Your task to perform on an android device: clear all cookies in the chrome app Image 0: 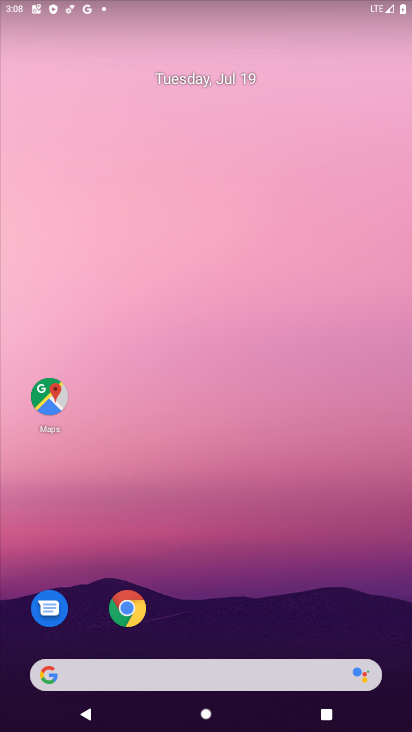
Step 0: drag from (310, 548) to (285, 48)
Your task to perform on an android device: clear all cookies in the chrome app Image 1: 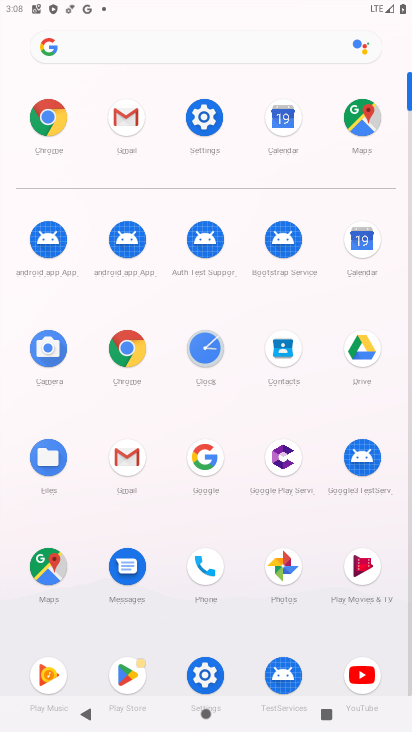
Step 1: click (45, 113)
Your task to perform on an android device: clear all cookies in the chrome app Image 2: 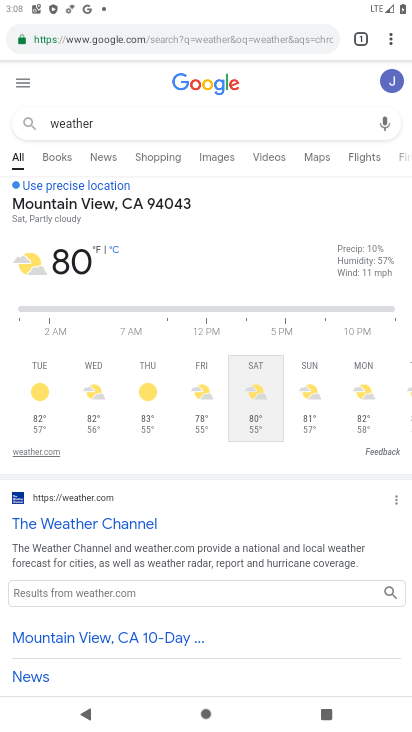
Step 2: drag from (400, 32) to (267, 225)
Your task to perform on an android device: clear all cookies in the chrome app Image 3: 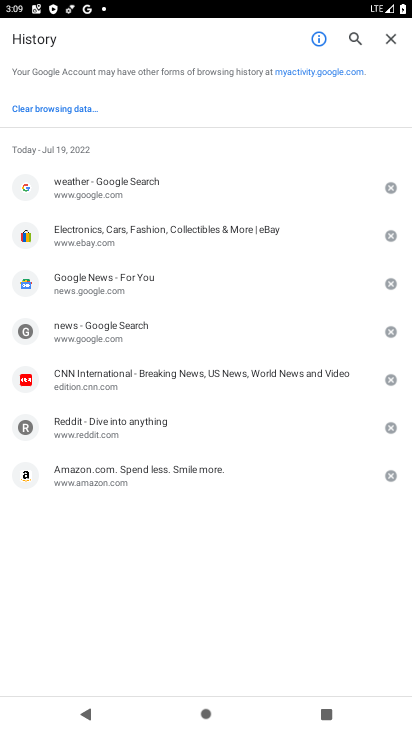
Step 3: click (54, 103)
Your task to perform on an android device: clear all cookies in the chrome app Image 4: 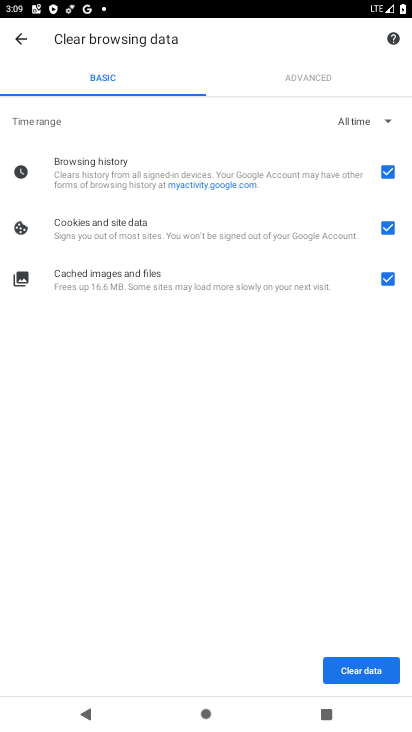
Step 4: click (362, 670)
Your task to perform on an android device: clear all cookies in the chrome app Image 5: 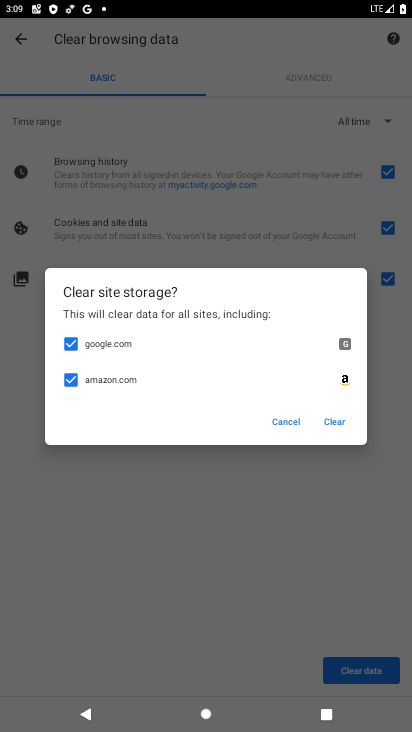
Step 5: click (336, 424)
Your task to perform on an android device: clear all cookies in the chrome app Image 6: 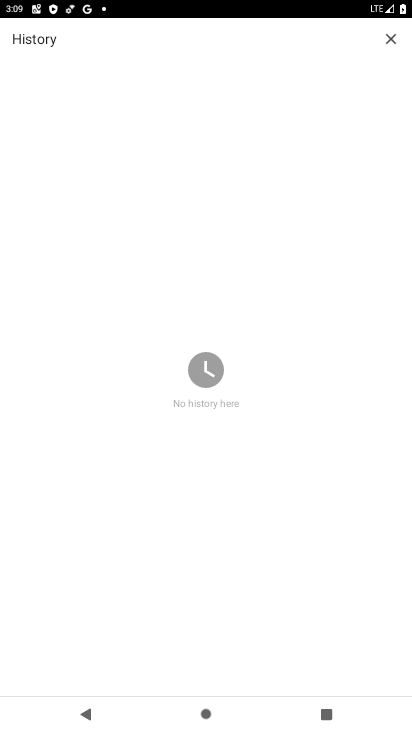
Step 6: task complete